Your task to perform on an android device: Show me recent news Image 0: 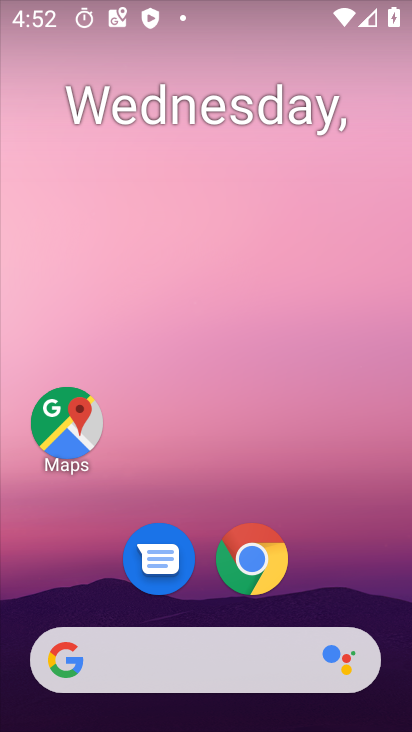
Step 0: drag from (358, 553) to (241, 10)
Your task to perform on an android device: Show me recent news Image 1: 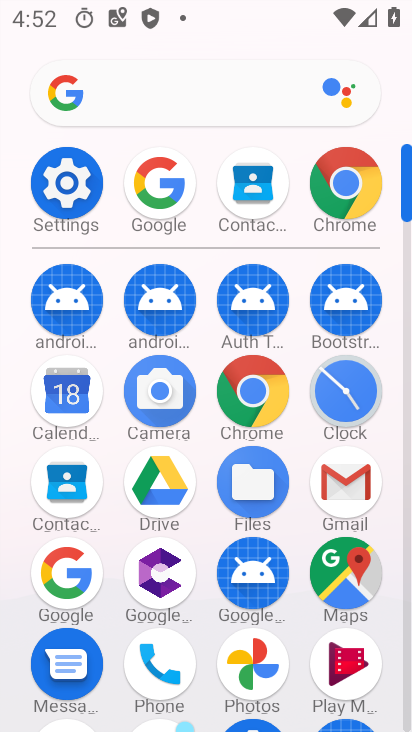
Step 1: click (70, 560)
Your task to perform on an android device: Show me recent news Image 2: 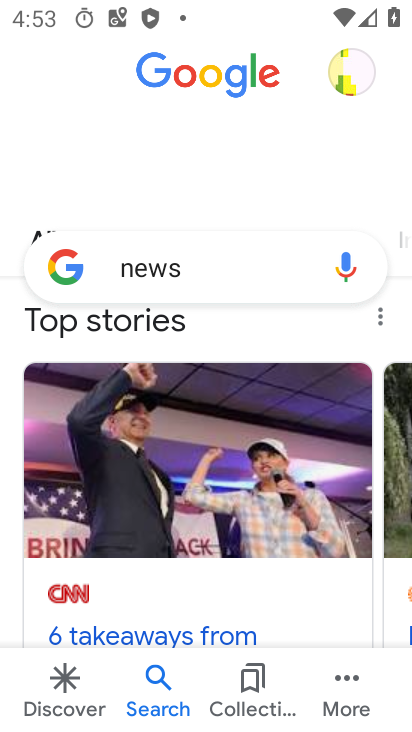
Step 2: click (216, 268)
Your task to perform on an android device: Show me recent news Image 3: 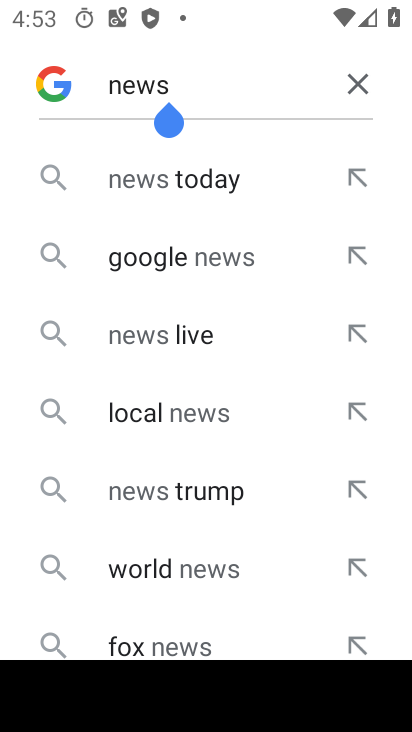
Step 3: click (358, 83)
Your task to perform on an android device: Show me recent news Image 4: 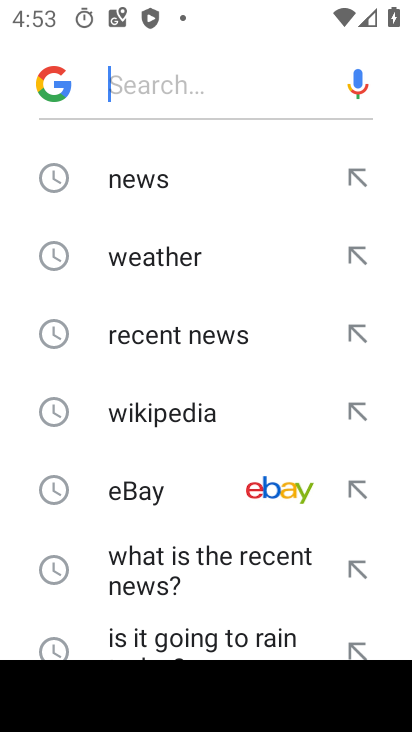
Step 4: click (205, 344)
Your task to perform on an android device: Show me recent news Image 5: 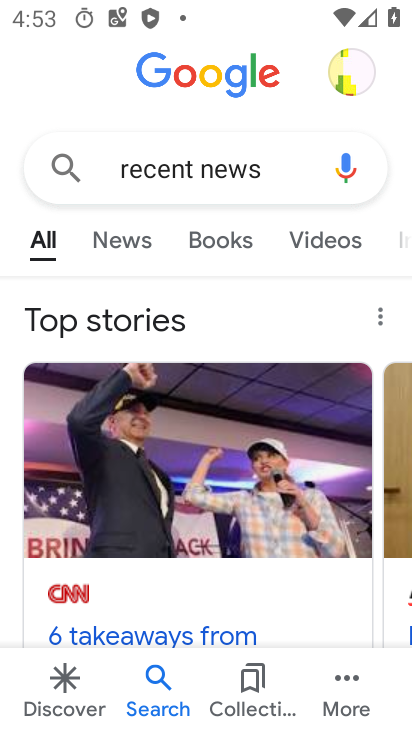
Step 5: task complete